Your task to perform on an android device: Open location settings Image 0: 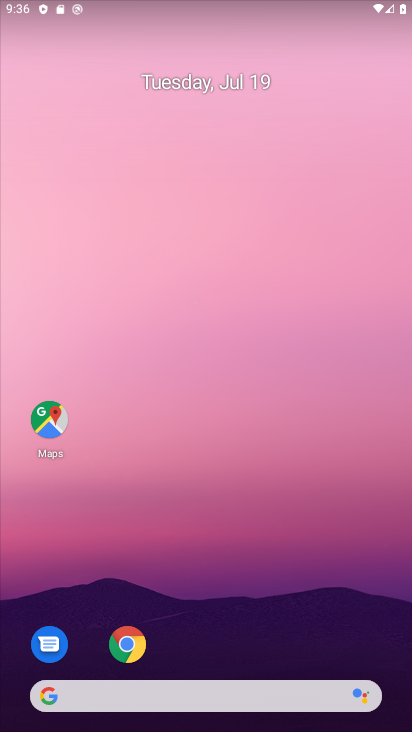
Step 0: drag from (220, 537) to (254, 285)
Your task to perform on an android device: Open location settings Image 1: 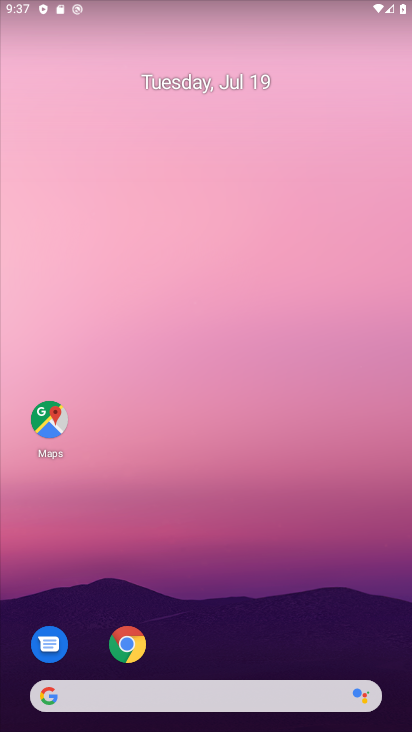
Step 1: drag from (200, 650) to (209, 142)
Your task to perform on an android device: Open location settings Image 2: 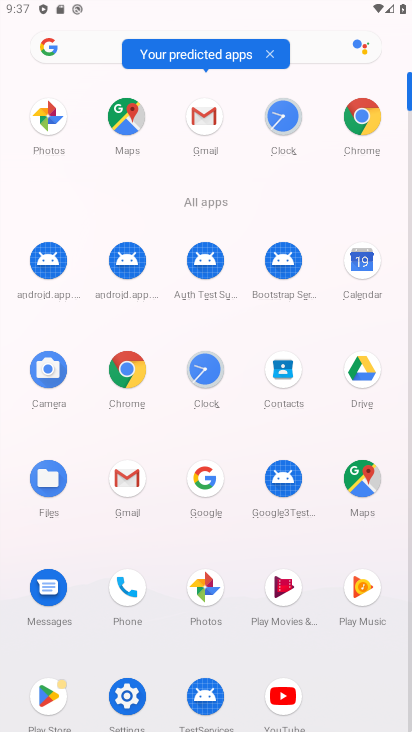
Step 2: click (140, 700)
Your task to perform on an android device: Open location settings Image 3: 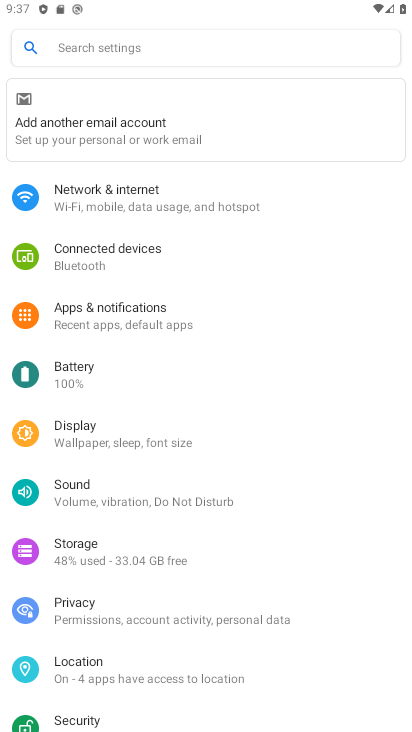
Step 3: click (105, 657)
Your task to perform on an android device: Open location settings Image 4: 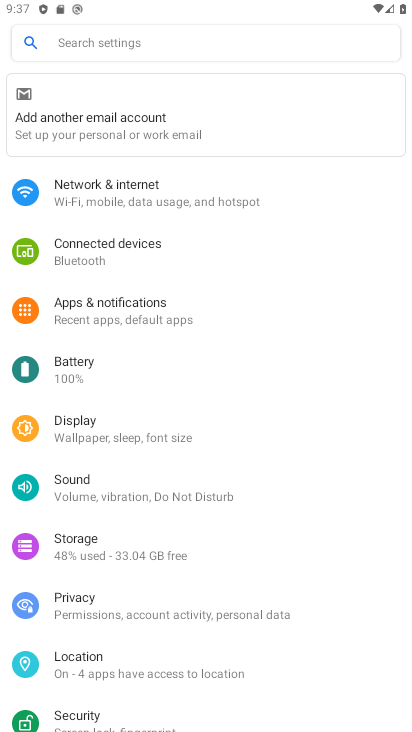
Step 4: click (105, 661)
Your task to perform on an android device: Open location settings Image 5: 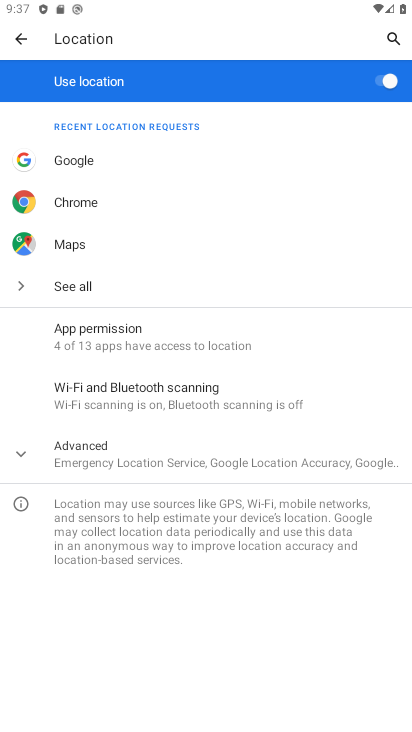
Step 5: click (263, 460)
Your task to perform on an android device: Open location settings Image 6: 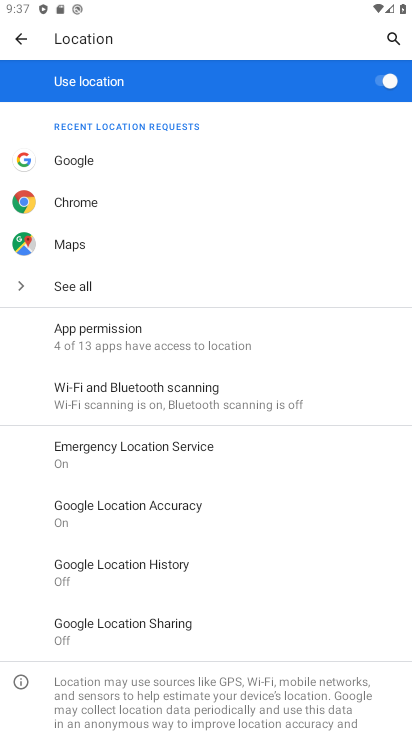
Step 6: task complete